Your task to perform on an android device: Open Google Maps and go to "Timeline" Image 0: 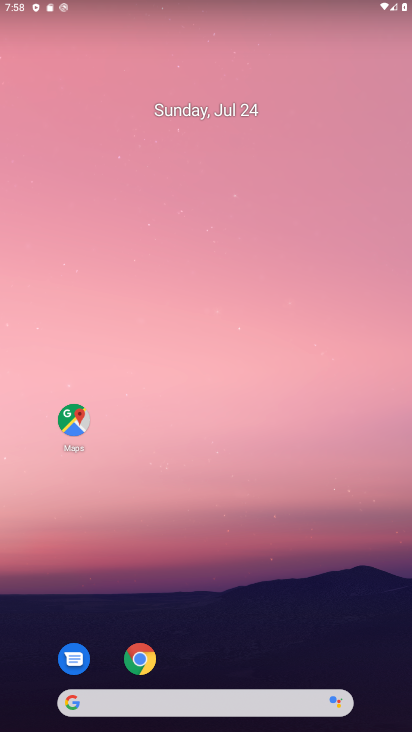
Step 0: drag from (216, 407) to (208, 21)
Your task to perform on an android device: Open Google Maps and go to "Timeline" Image 1: 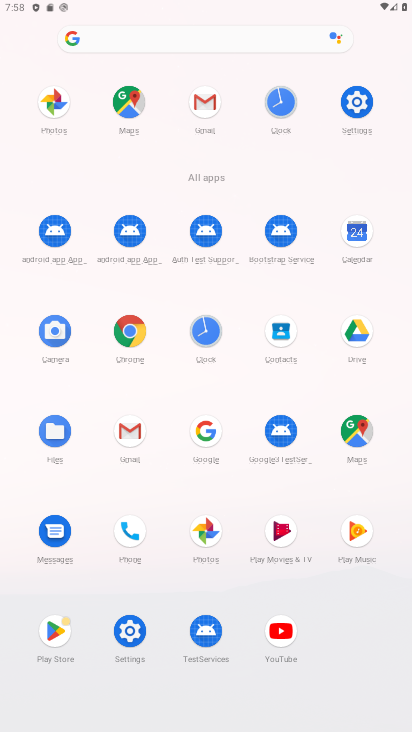
Step 1: click (345, 444)
Your task to perform on an android device: Open Google Maps and go to "Timeline" Image 2: 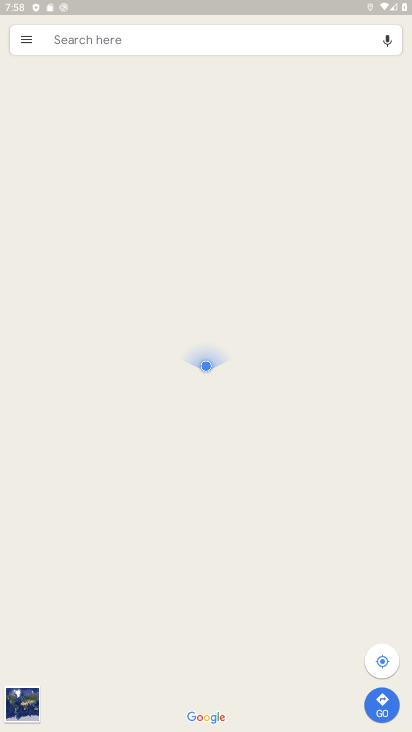
Step 2: click (20, 36)
Your task to perform on an android device: Open Google Maps and go to "Timeline" Image 3: 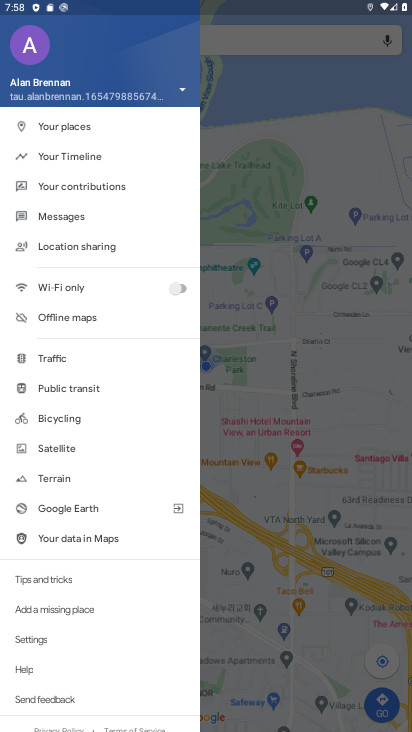
Step 3: click (79, 156)
Your task to perform on an android device: Open Google Maps and go to "Timeline" Image 4: 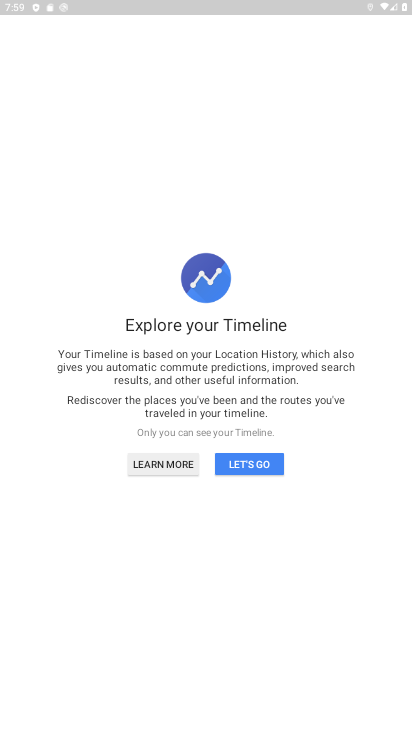
Step 4: click (257, 466)
Your task to perform on an android device: Open Google Maps and go to "Timeline" Image 5: 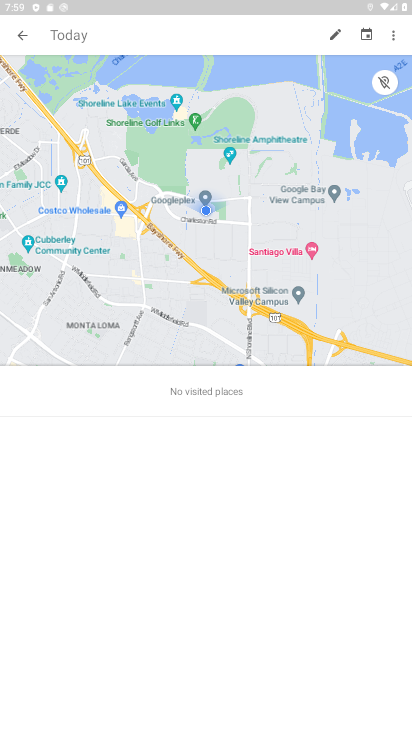
Step 5: task complete